Your task to perform on an android device: Show me popular videos on Youtube Image 0: 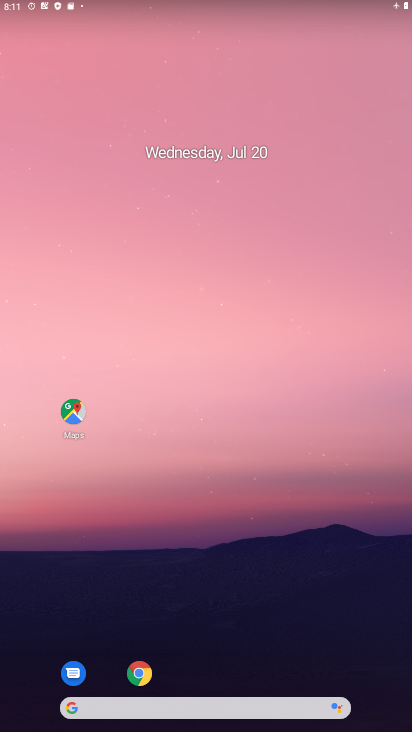
Step 0: drag from (380, 680) to (185, 44)
Your task to perform on an android device: Show me popular videos on Youtube Image 1: 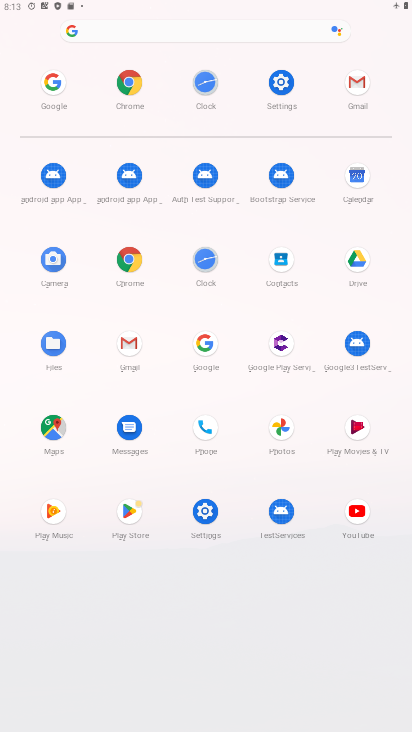
Step 1: click (363, 512)
Your task to perform on an android device: Show me popular videos on Youtube Image 2: 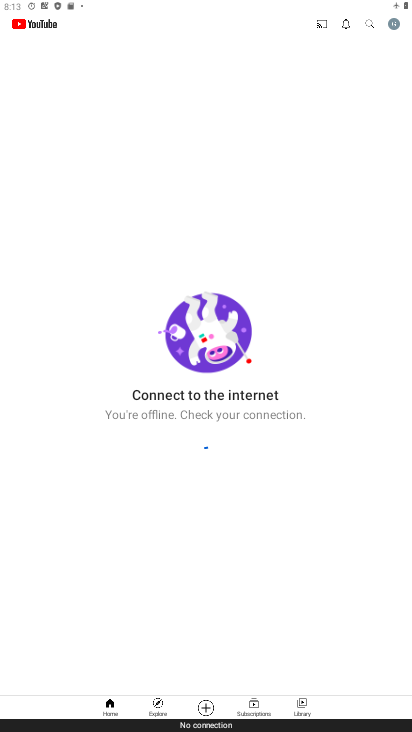
Step 2: task complete